Your task to perform on an android device: turn on notifications settings in the gmail app Image 0: 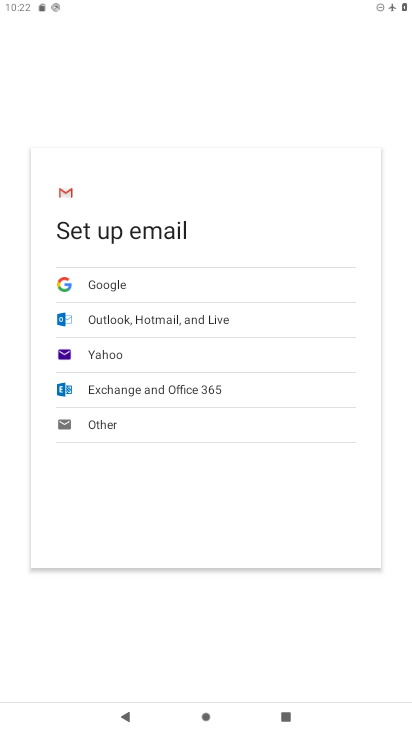
Step 0: press home button
Your task to perform on an android device: turn on notifications settings in the gmail app Image 1: 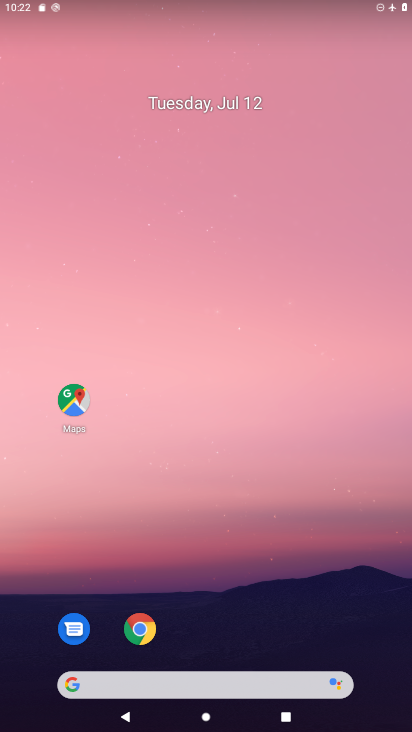
Step 1: drag from (203, 666) to (272, 13)
Your task to perform on an android device: turn on notifications settings in the gmail app Image 2: 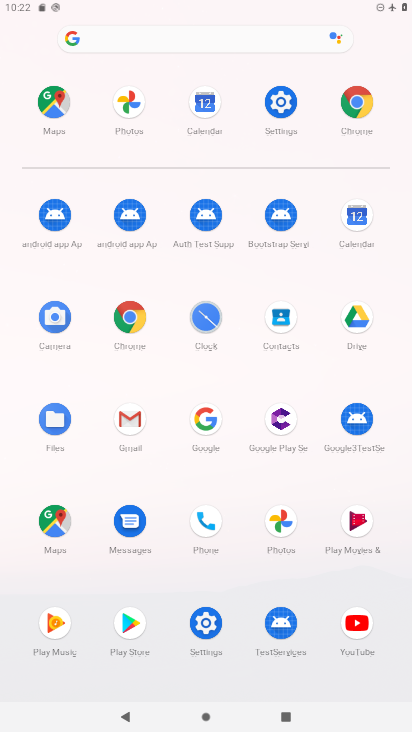
Step 2: click (121, 415)
Your task to perform on an android device: turn on notifications settings in the gmail app Image 3: 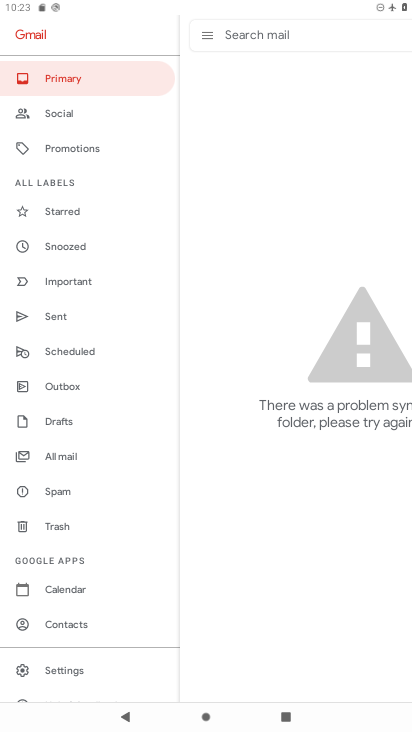
Step 3: click (67, 665)
Your task to perform on an android device: turn on notifications settings in the gmail app Image 4: 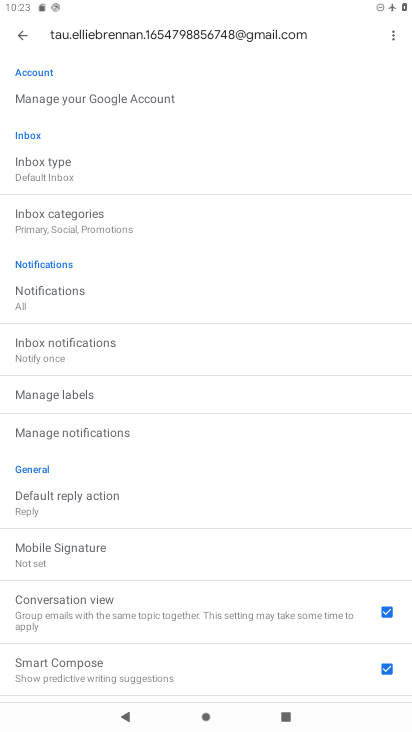
Step 4: click (86, 436)
Your task to perform on an android device: turn on notifications settings in the gmail app Image 5: 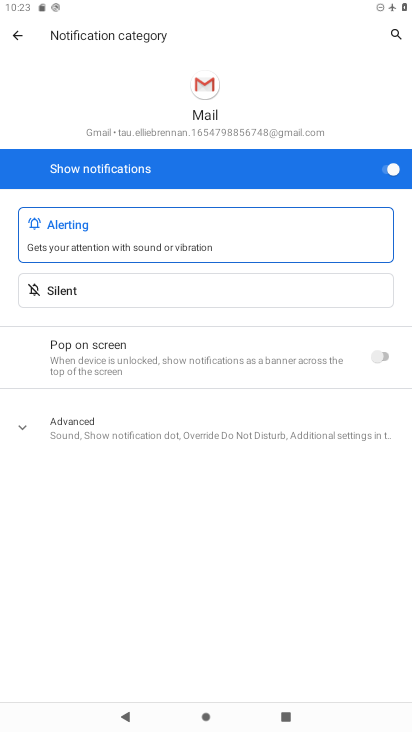
Step 5: task complete